Your task to perform on an android device: Open the stopwatch Image 0: 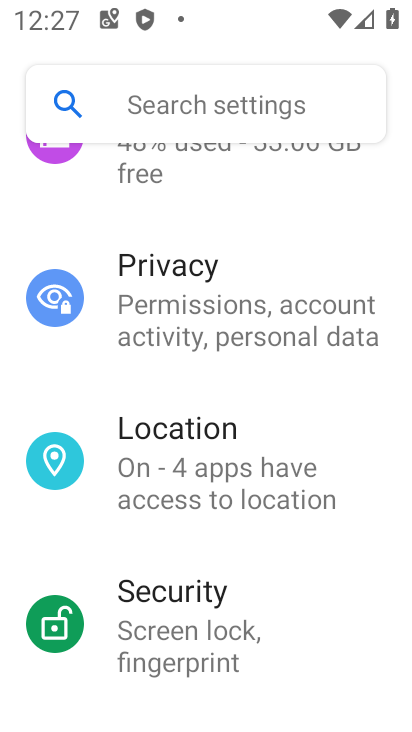
Step 0: press home button
Your task to perform on an android device: Open the stopwatch Image 1: 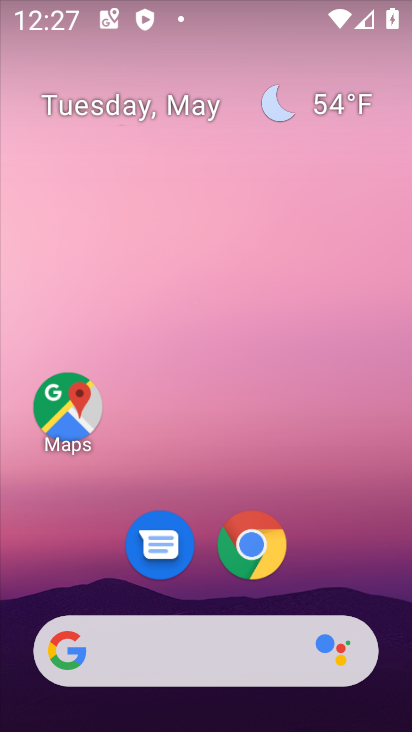
Step 1: drag from (348, 609) to (333, 53)
Your task to perform on an android device: Open the stopwatch Image 2: 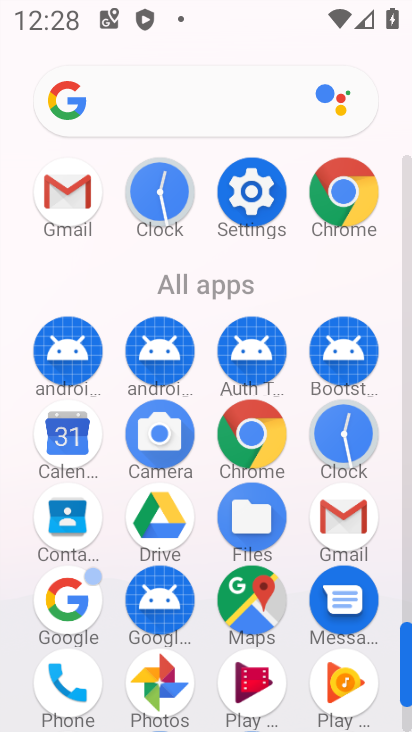
Step 2: click (331, 460)
Your task to perform on an android device: Open the stopwatch Image 3: 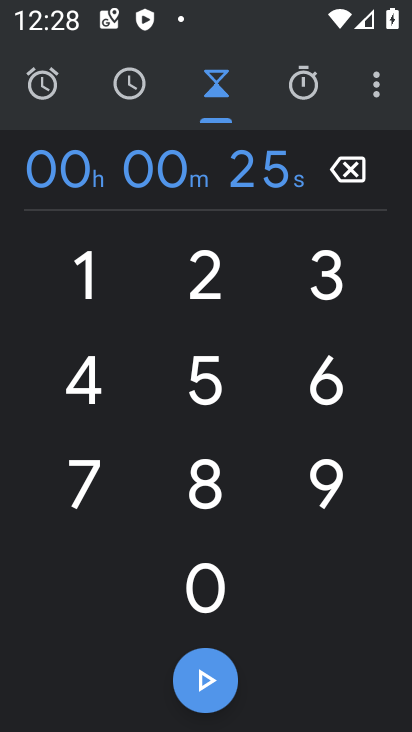
Step 3: click (303, 89)
Your task to perform on an android device: Open the stopwatch Image 4: 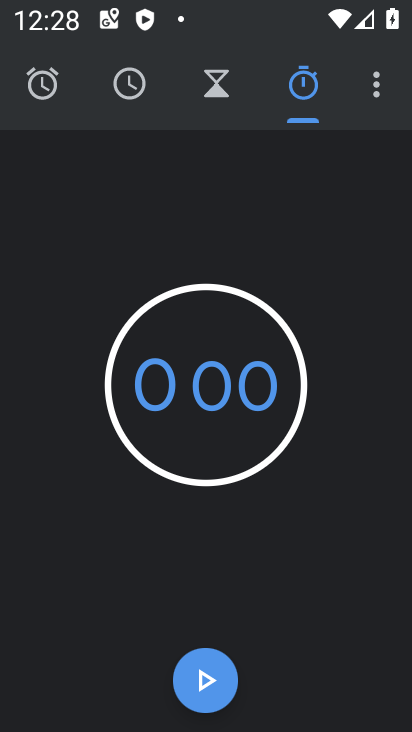
Step 4: task complete